Your task to perform on an android device: Open location settings Image 0: 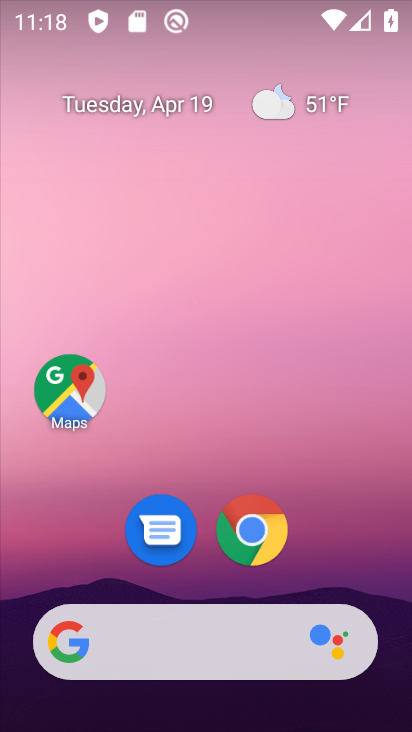
Step 0: drag from (148, 600) to (277, 0)
Your task to perform on an android device: Open location settings Image 1: 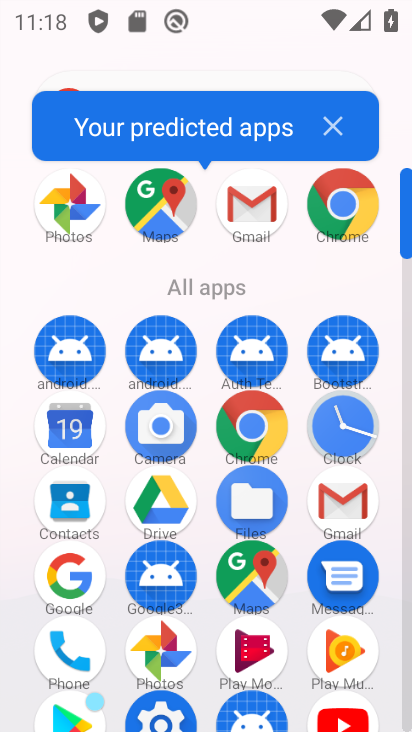
Step 1: drag from (185, 650) to (341, 183)
Your task to perform on an android device: Open location settings Image 2: 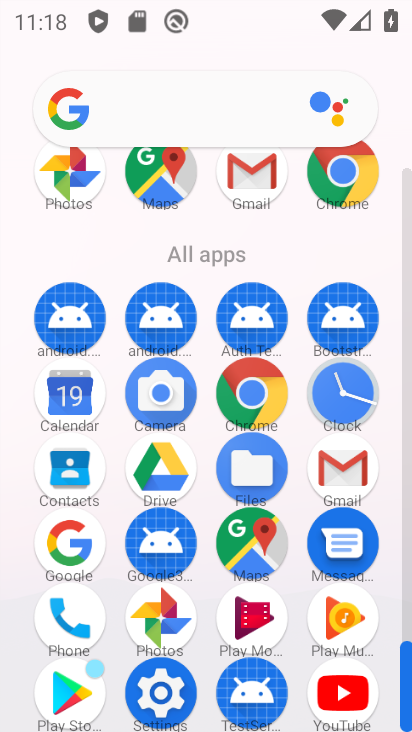
Step 2: click (159, 698)
Your task to perform on an android device: Open location settings Image 3: 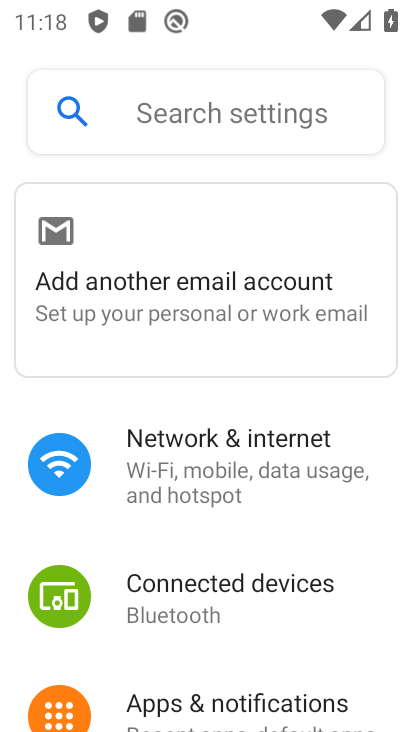
Step 3: drag from (226, 586) to (358, 155)
Your task to perform on an android device: Open location settings Image 4: 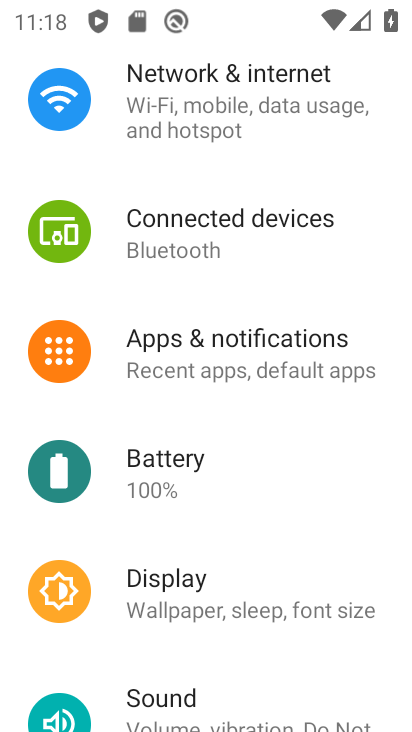
Step 4: drag from (212, 584) to (333, 185)
Your task to perform on an android device: Open location settings Image 5: 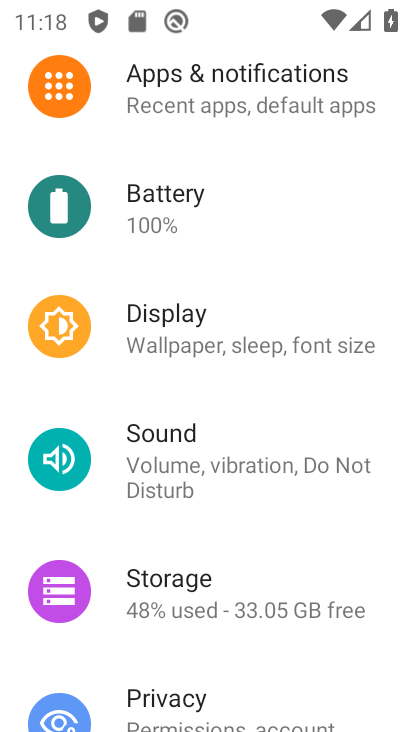
Step 5: drag from (226, 596) to (335, 184)
Your task to perform on an android device: Open location settings Image 6: 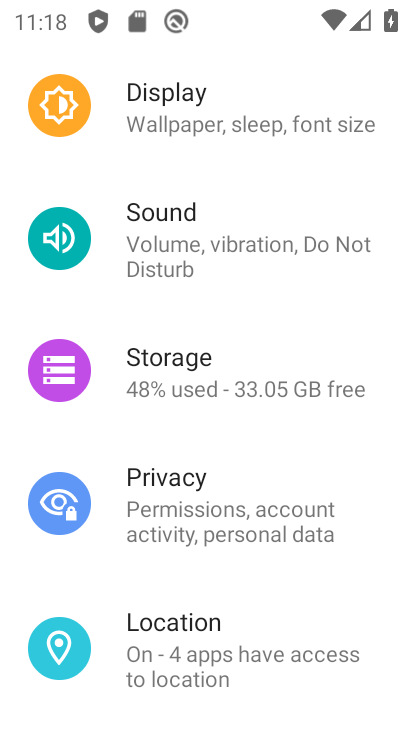
Step 6: click (172, 646)
Your task to perform on an android device: Open location settings Image 7: 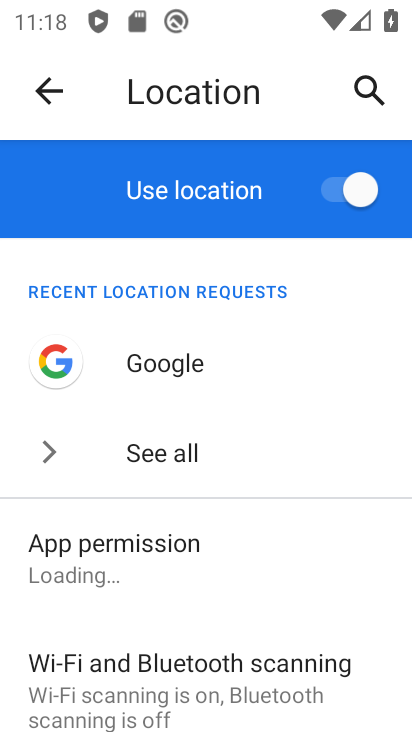
Step 7: task complete